Your task to perform on an android device: Go to Android settings Image 0: 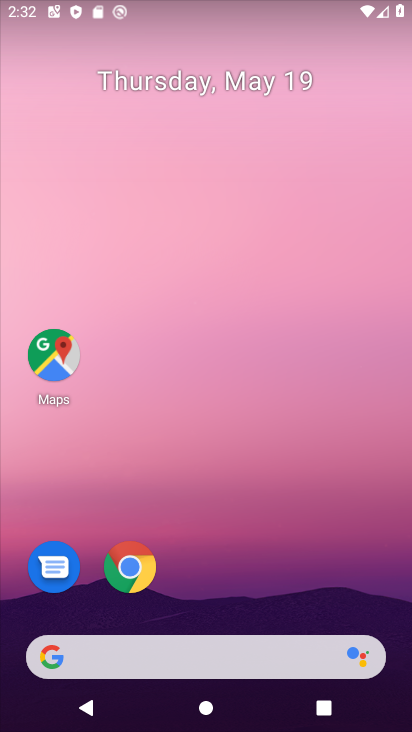
Step 0: drag from (235, 726) to (242, 117)
Your task to perform on an android device: Go to Android settings Image 1: 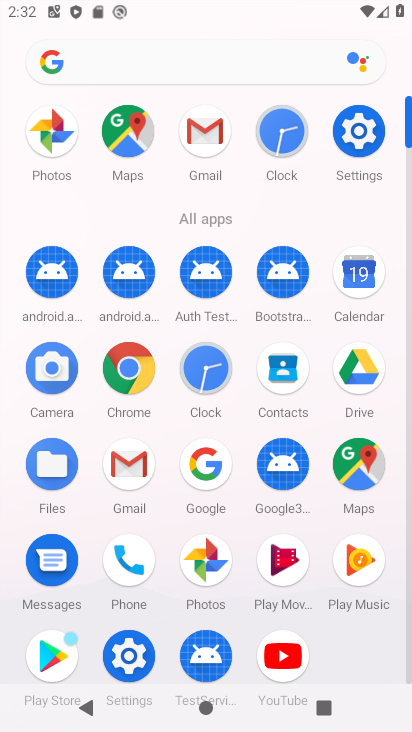
Step 1: click (347, 130)
Your task to perform on an android device: Go to Android settings Image 2: 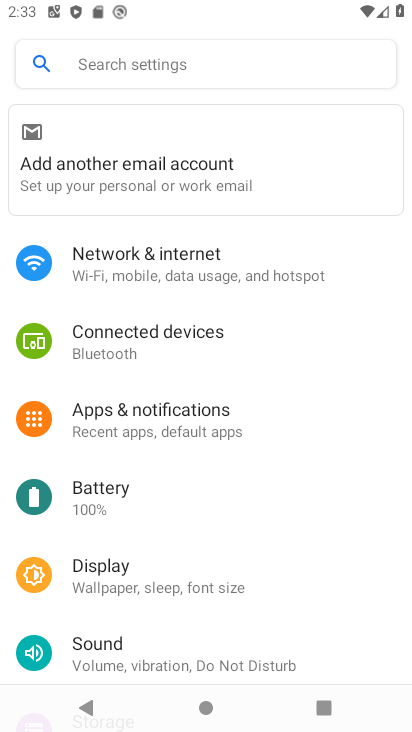
Step 2: task complete